Your task to perform on an android device: Open calendar and show me the second week of next month Image 0: 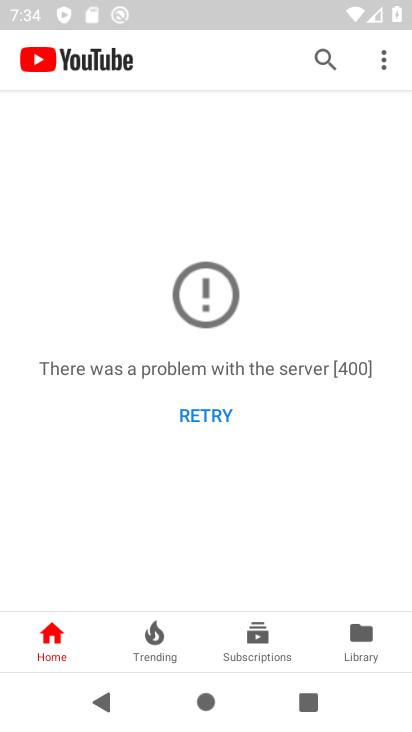
Step 0: press home button
Your task to perform on an android device: Open calendar and show me the second week of next month Image 1: 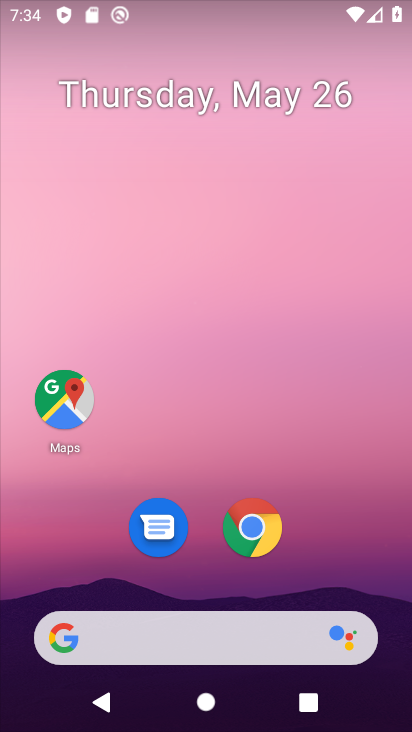
Step 1: drag from (13, 629) to (314, 123)
Your task to perform on an android device: Open calendar and show me the second week of next month Image 2: 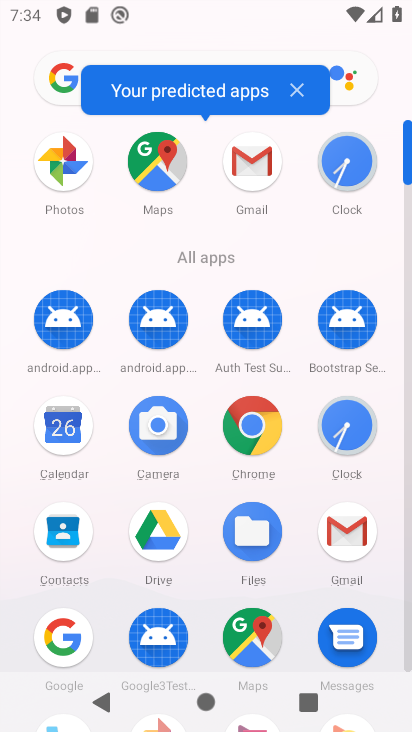
Step 2: click (70, 439)
Your task to perform on an android device: Open calendar and show me the second week of next month Image 3: 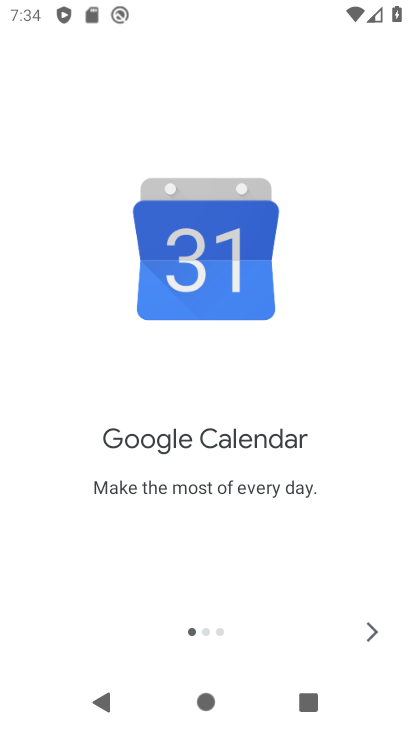
Step 3: click (373, 635)
Your task to perform on an android device: Open calendar and show me the second week of next month Image 4: 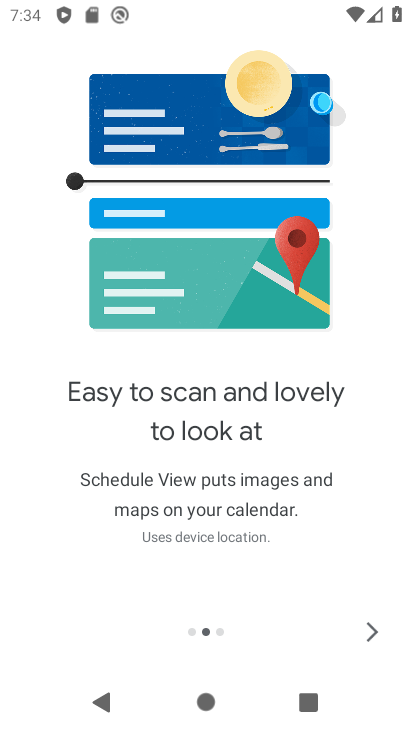
Step 4: click (371, 631)
Your task to perform on an android device: Open calendar and show me the second week of next month Image 5: 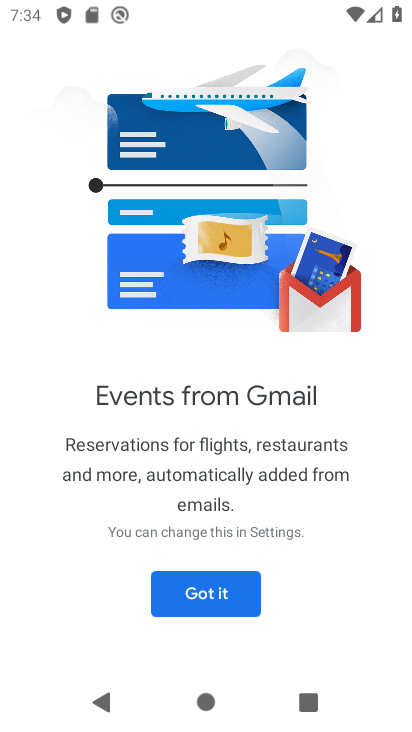
Step 5: click (208, 597)
Your task to perform on an android device: Open calendar and show me the second week of next month Image 6: 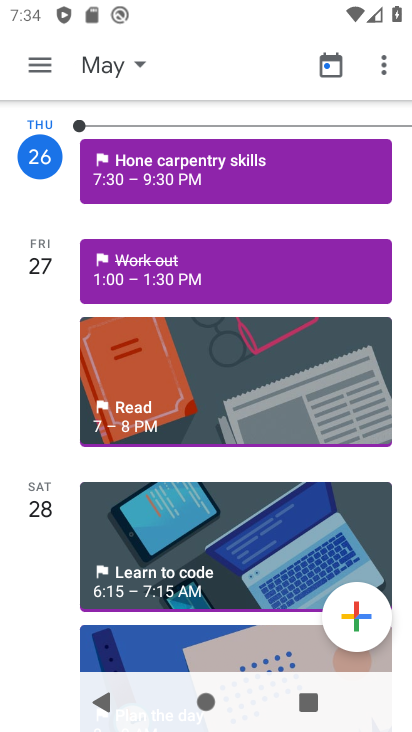
Step 6: click (128, 54)
Your task to perform on an android device: Open calendar and show me the second week of next month Image 7: 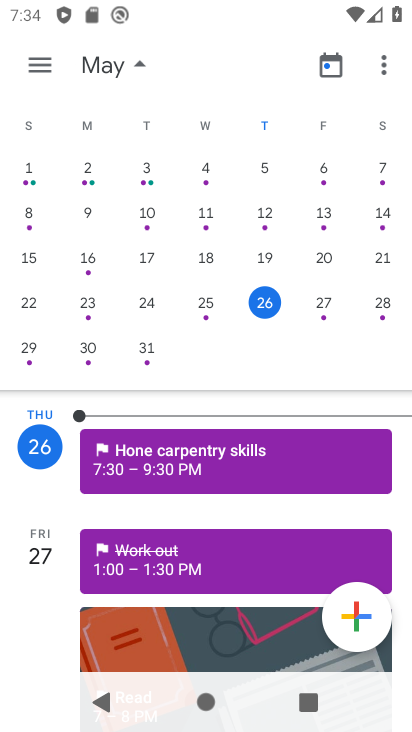
Step 7: drag from (373, 214) to (401, 275)
Your task to perform on an android device: Open calendar and show me the second week of next month Image 8: 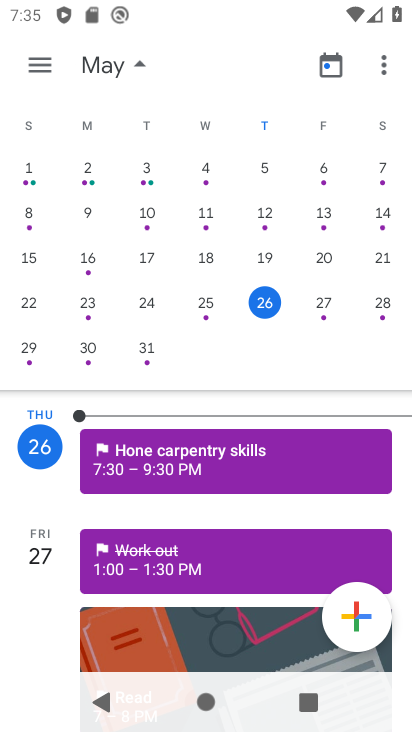
Step 8: drag from (400, 266) to (201, 267)
Your task to perform on an android device: Open calendar and show me the second week of next month Image 9: 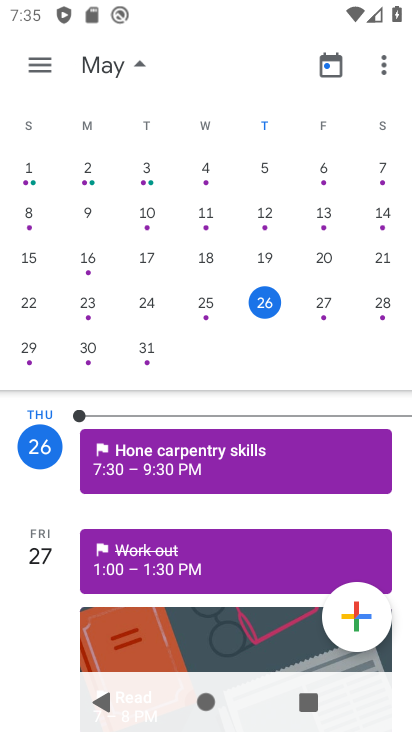
Step 9: drag from (350, 220) to (26, 438)
Your task to perform on an android device: Open calendar and show me the second week of next month Image 10: 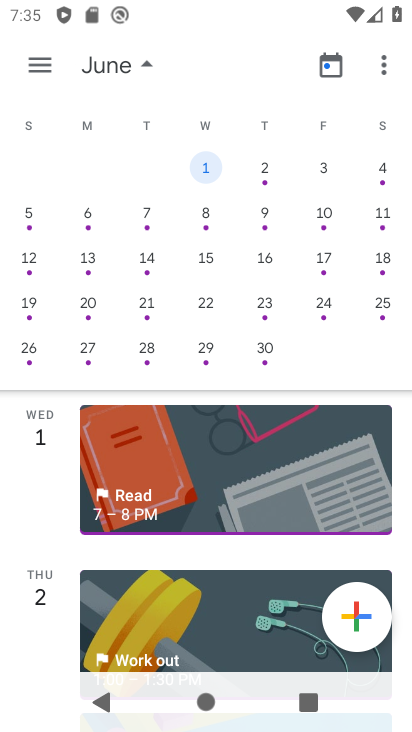
Step 10: click (147, 222)
Your task to perform on an android device: Open calendar and show me the second week of next month Image 11: 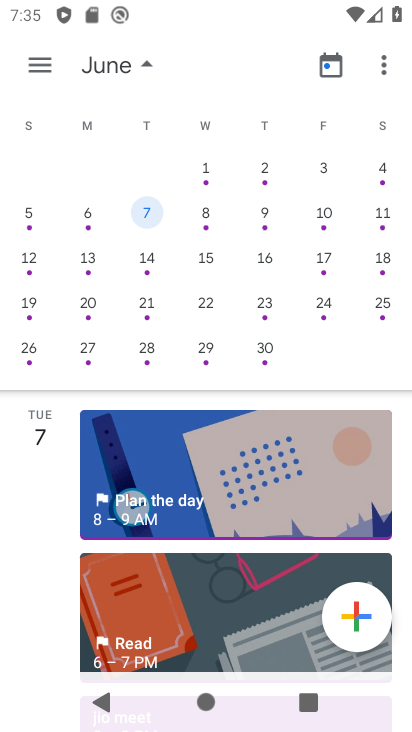
Step 11: task complete